Your task to perform on an android device: Is it going to rain this weekend? Image 0: 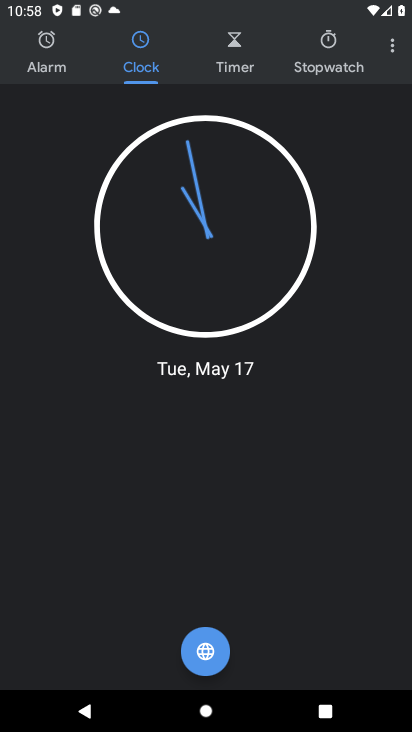
Step 0: press home button
Your task to perform on an android device: Is it going to rain this weekend? Image 1: 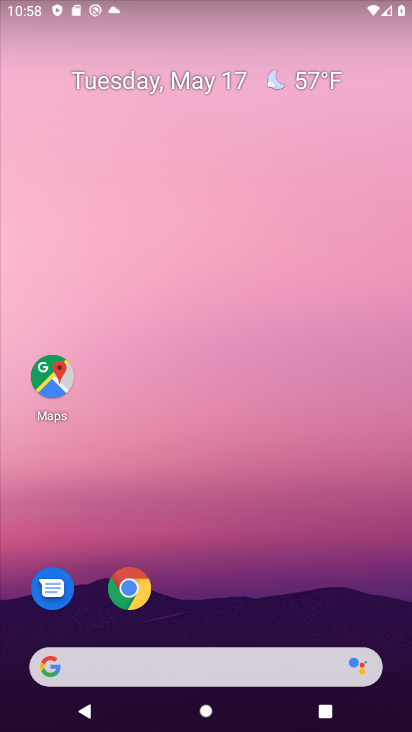
Step 1: drag from (206, 605) to (236, 95)
Your task to perform on an android device: Is it going to rain this weekend? Image 2: 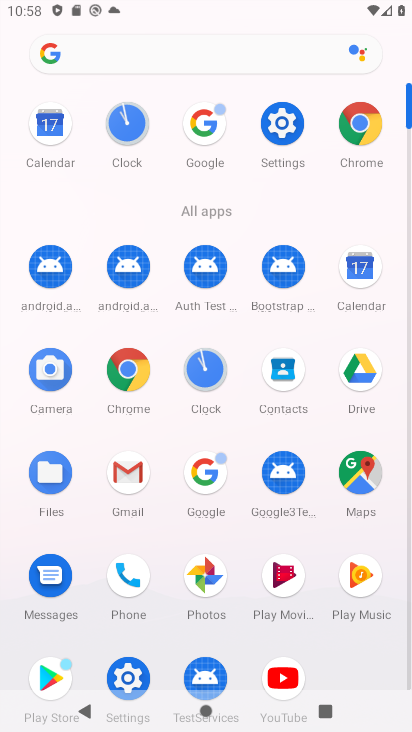
Step 2: click (205, 485)
Your task to perform on an android device: Is it going to rain this weekend? Image 3: 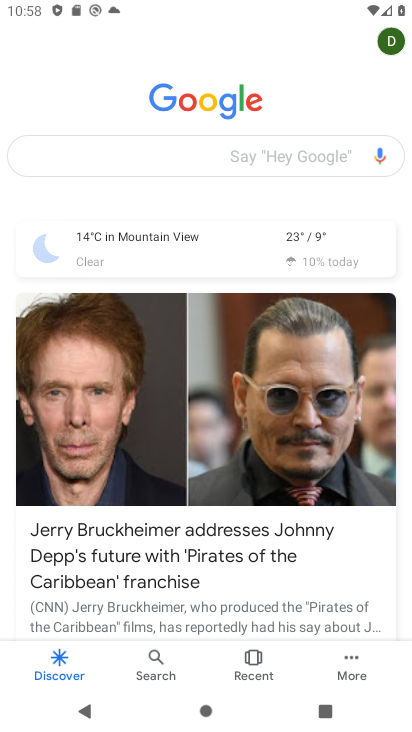
Step 3: click (231, 160)
Your task to perform on an android device: Is it going to rain this weekend? Image 4: 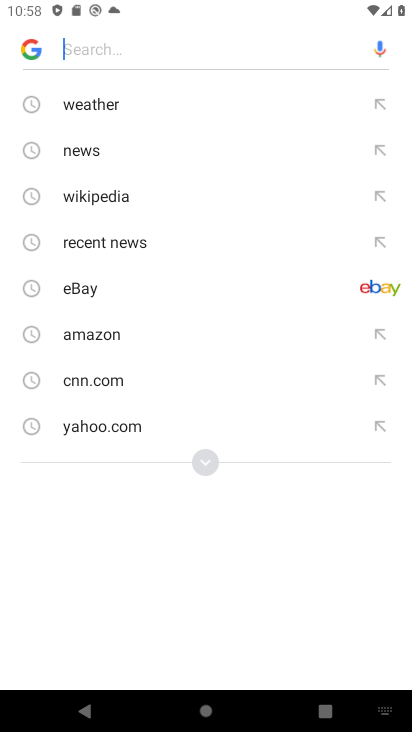
Step 4: type "is it going to rain this weekend"
Your task to perform on an android device: Is it going to rain this weekend? Image 5: 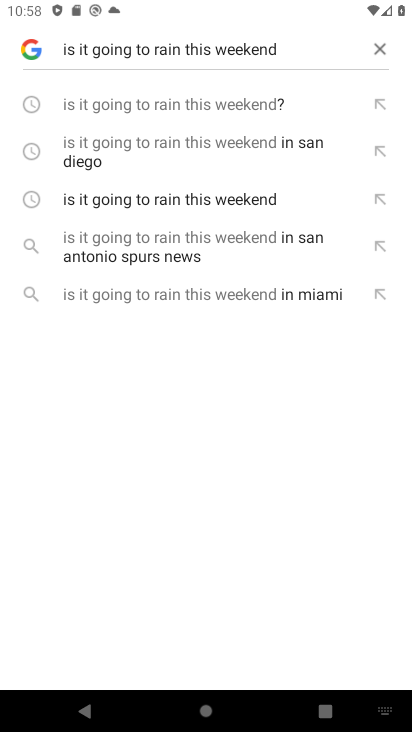
Step 5: click (235, 112)
Your task to perform on an android device: Is it going to rain this weekend? Image 6: 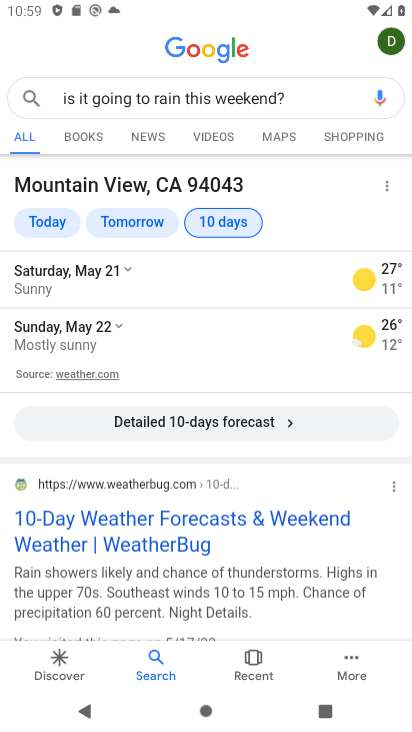
Step 6: task complete